Your task to perform on an android device: open sync settings in chrome Image 0: 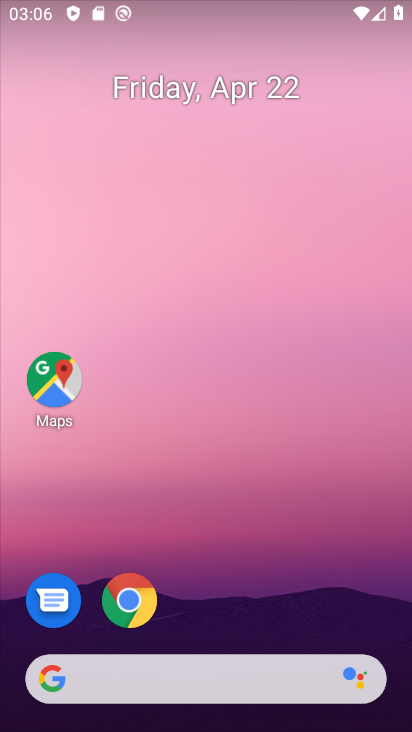
Step 0: drag from (235, 594) to (245, 241)
Your task to perform on an android device: open sync settings in chrome Image 1: 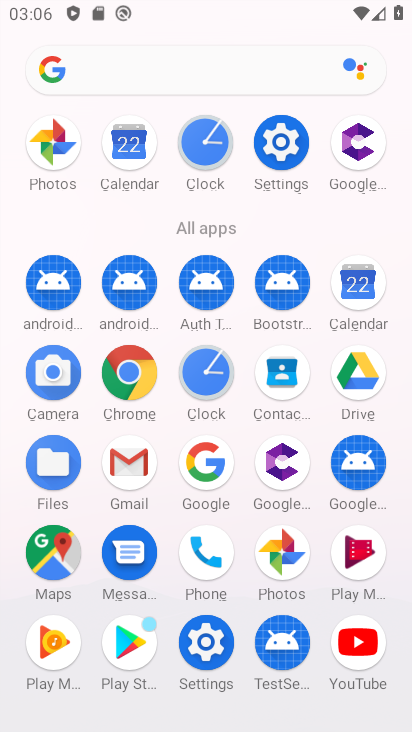
Step 1: click (111, 393)
Your task to perform on an android device: open sync settings in chrome Image 2: 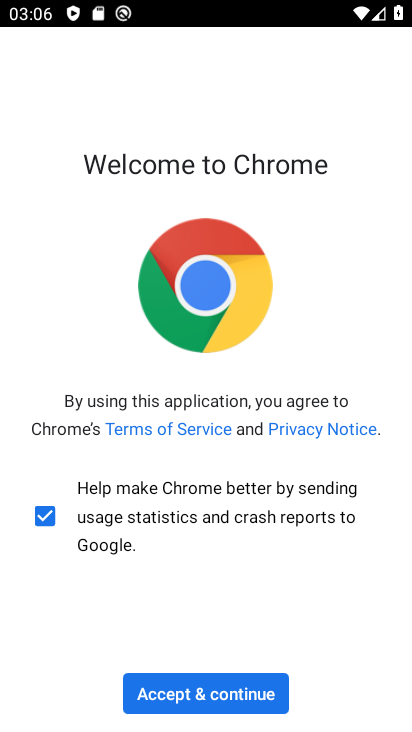
Step 2: click (171, 693)
Your task to perform on an android device: open sync settings in chrome Image 3: 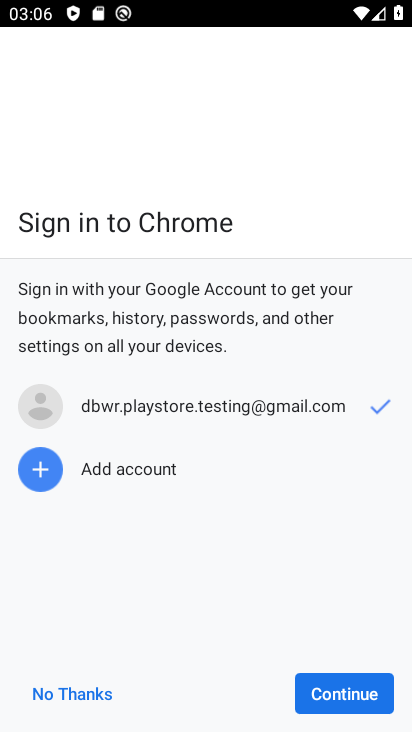
Step 3: click (347, 699)
Your task to perform on an android device: open sync settings in chrome Image 4: 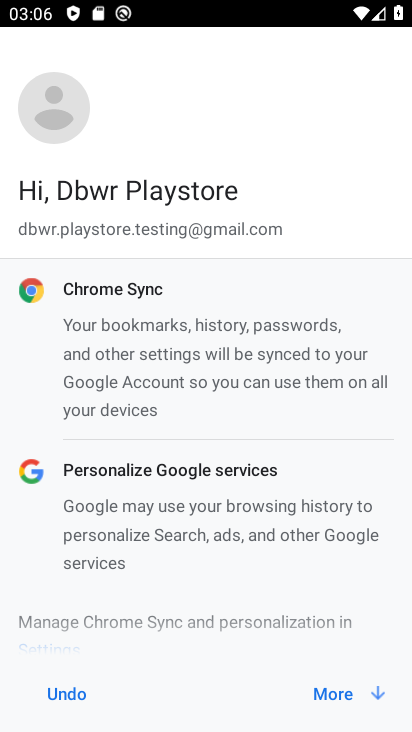
Step 4: drag from (233, 420) to (200, 298)
Your task to perform on an android device: open sync settings in chrome Image 5: 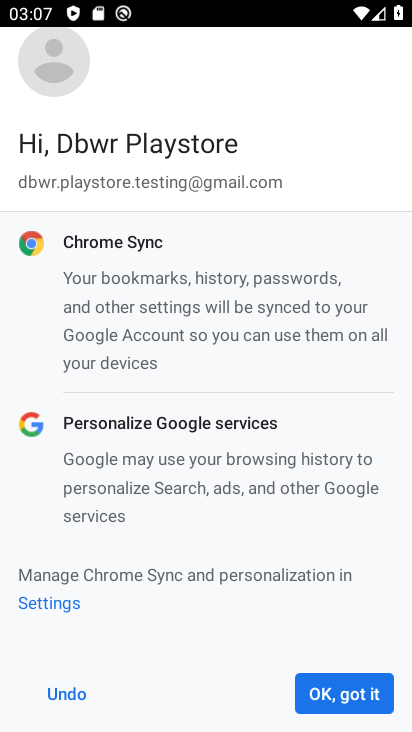
Step 5: press home button
Your task to perform on an android device: open sync settings in chrome Image 6: 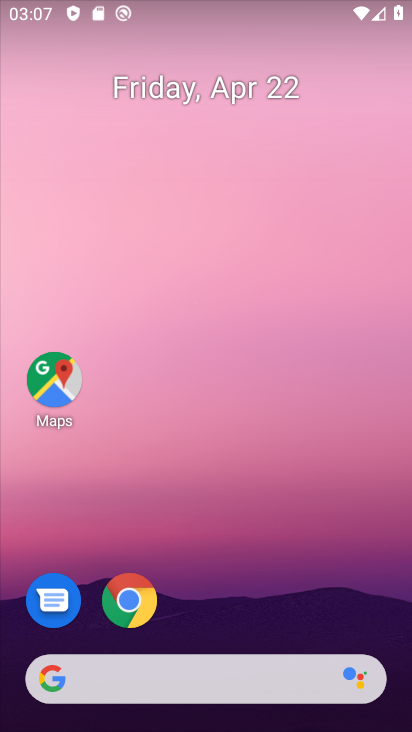
Step 6: click (134, 610)
Your task to perform on an android device: open sync settings in chrome Image 7: 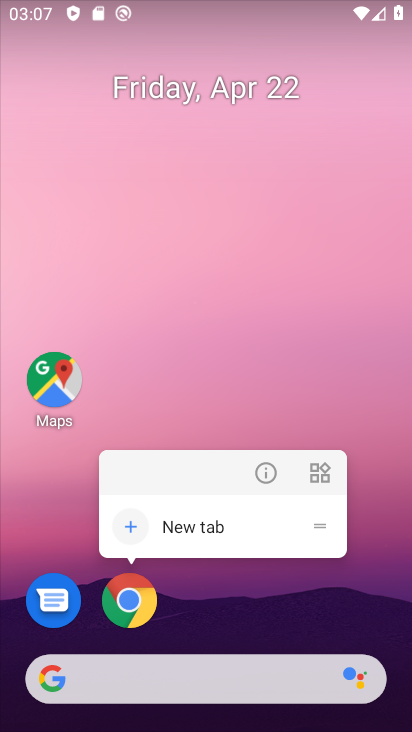
Step 7: click (135, 601)
Your task to perform on an android device: open sync settings in chrome Image 8: 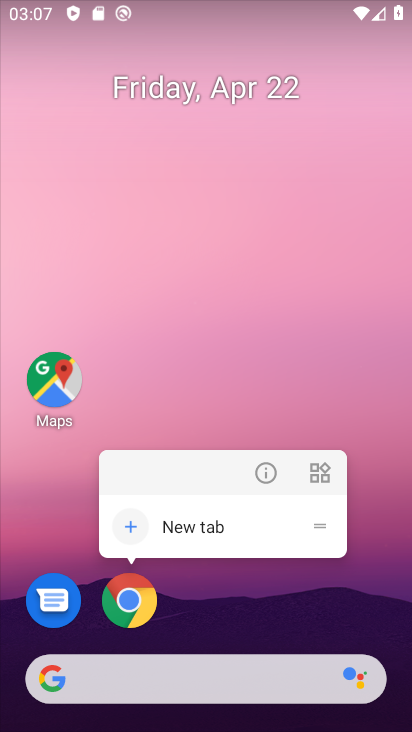
Step 8: click (127, 594)
Your task to perform on an android device: open sync settings in chrome Image 9: 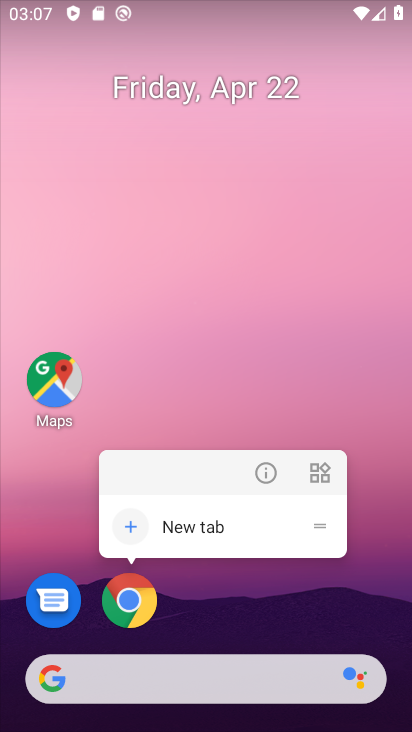
Step 9: click (110, 606)
Your task to perform on an android device: open sync settings in chrome Image 10: 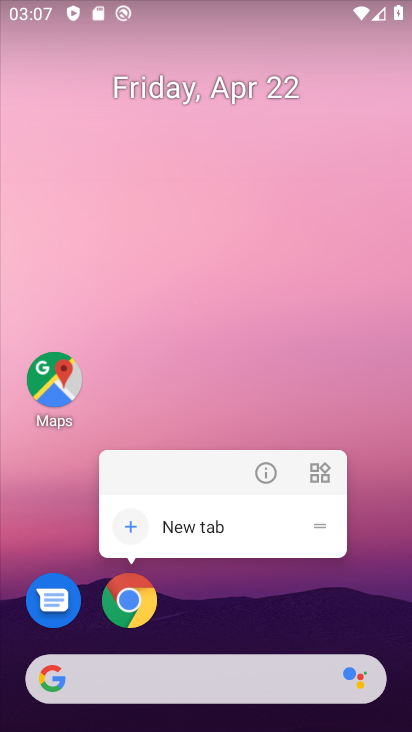
Step 10: click (123, 596)
Your task to perform on an android device: open sync settings in chrome Image 11: 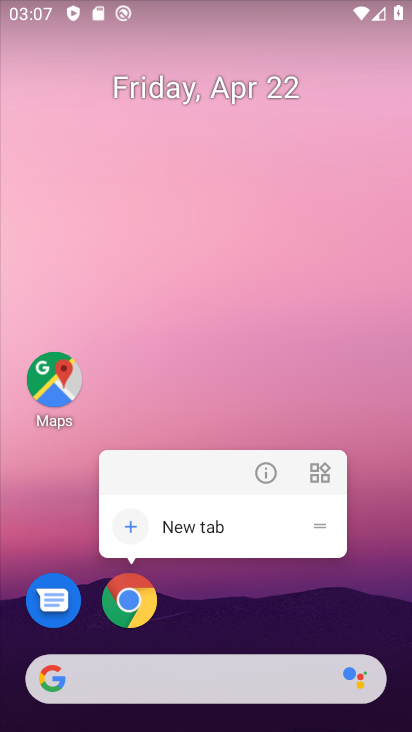
Step 11: click (128, 591)
Your task to perform on an android device: open sync settings in chrome Image 12: 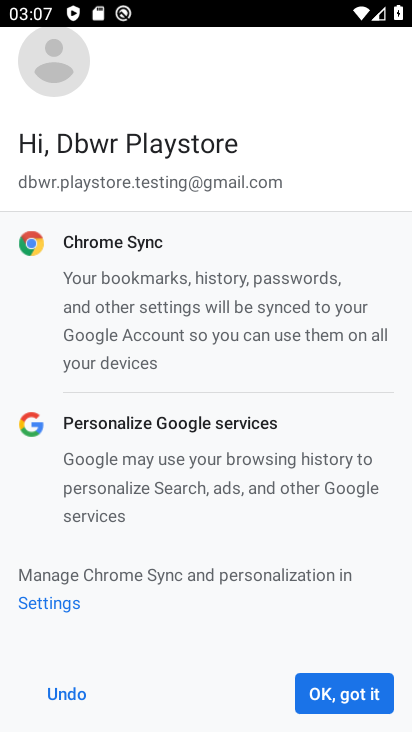
Step 12: click (361, 692)
Your task to perform on an android device: open sync settings in chrome Image 13: 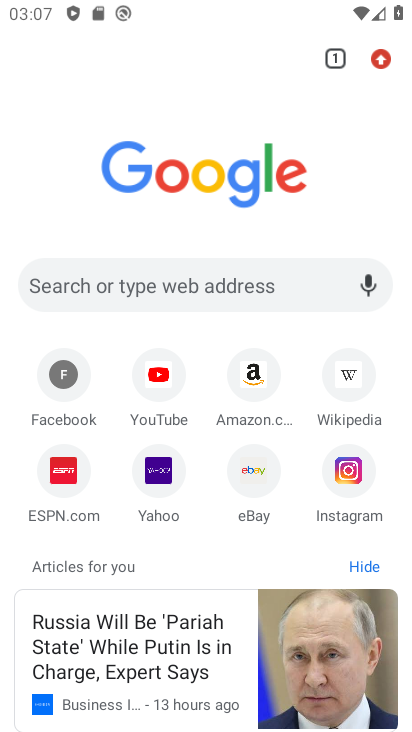
Step 13: click (379, 55)
Your task to perform on an android device: open sync settings in chrome Image 14: 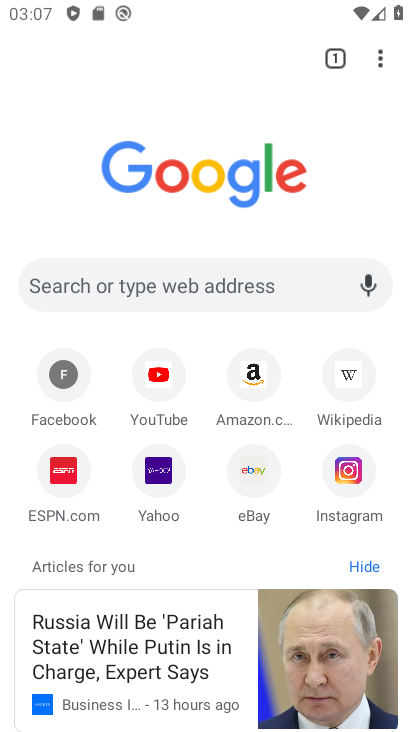
Step 14: click (379, 60)
Your task to perform on an android device: open sync settings in chrome Image 15: 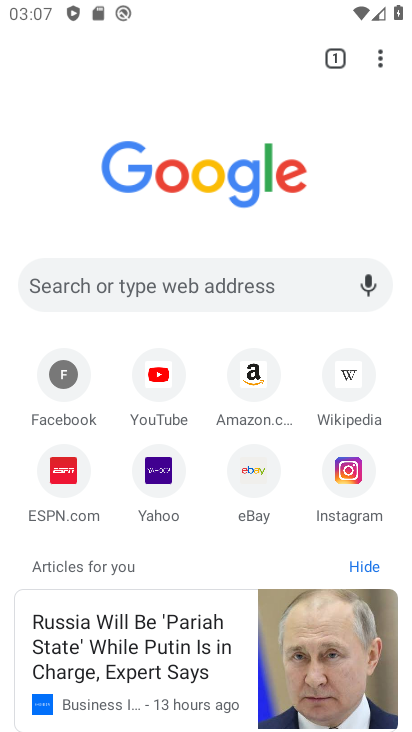
Step 15: click (379, 60)
Your task to perform on an android device: open sync settings in chrome Image 16: 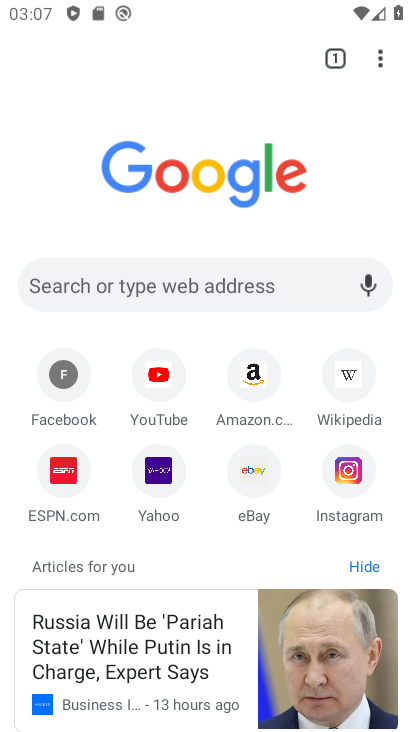
Step 16: click (380, 62)
Your task to perform on an android device: open sync settings in chrome Image 17: 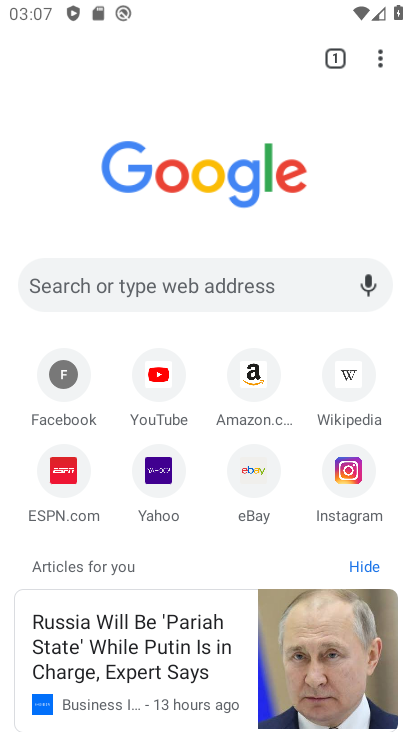
Step 17: click (386, 59)
Your task to perform on an android device: open sync settings in chrome Image 18: 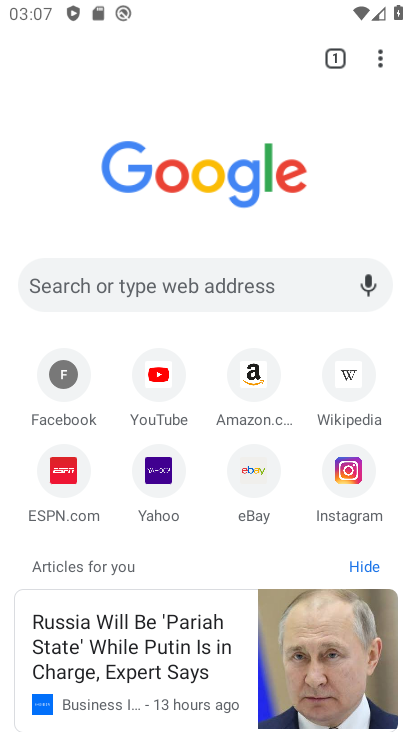
Step 18: click (384, 61)
Your task to perform on an android device: open sync settings in chrome Image 19: 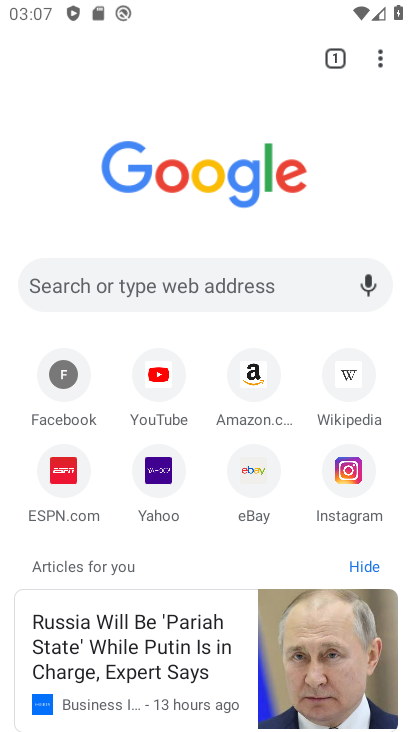
Step 19: click (384, 59)
Your task to perform on an android device: open sync settings in chrome Image 20: 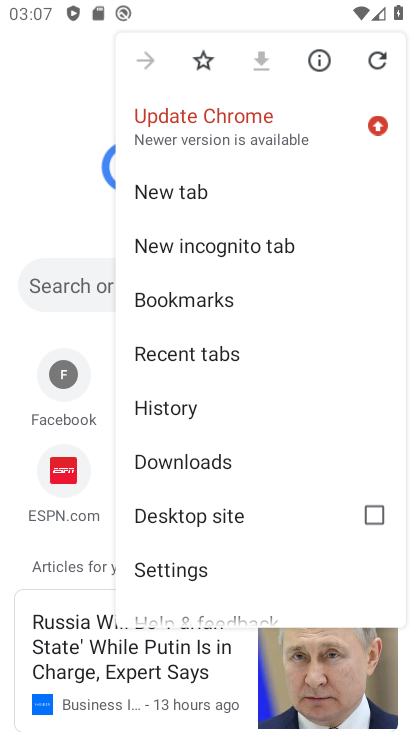
Step 20: click (167, 567)
Your task to perform on an android device: open sync settings in chrome Image 21: 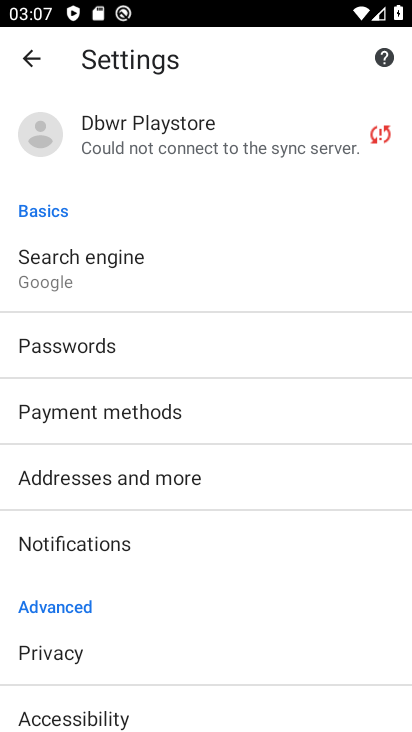
Step 21: drag from (100, 652) to (211, 298)
Your task to perform on an android device: open sync settings in chrome Image 22: 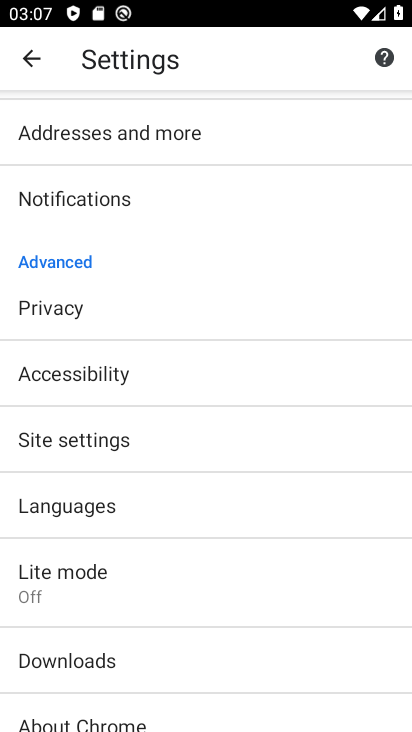
Step 22: drag from (111, 637) to (151, 256)
Your task to perform on an android device: open sync settings in chrome Image 23: 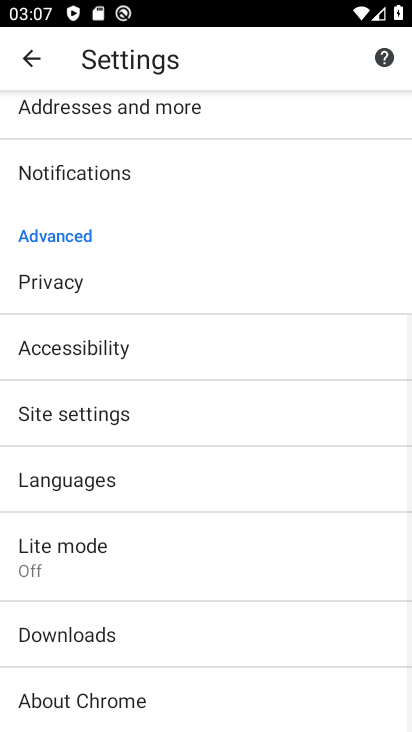
Step 23: drag from (181, 286) to (98, 692)
Your task to perform on an android device: open sync settings in chrome Image 24: 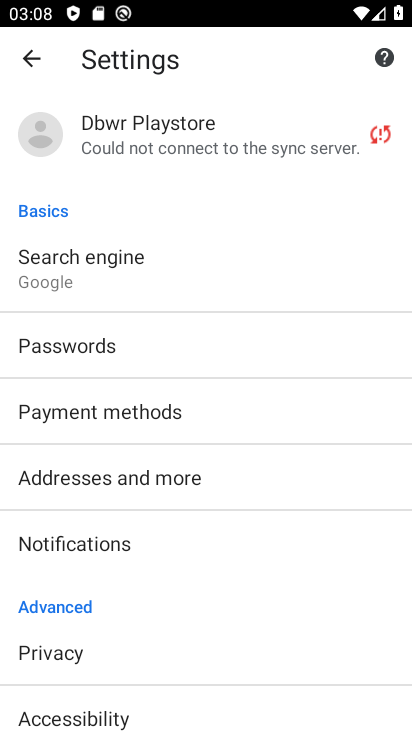
Step 24: click (183, 134)
Your task to perform on an android device: open sync settings in chrome Image 25: 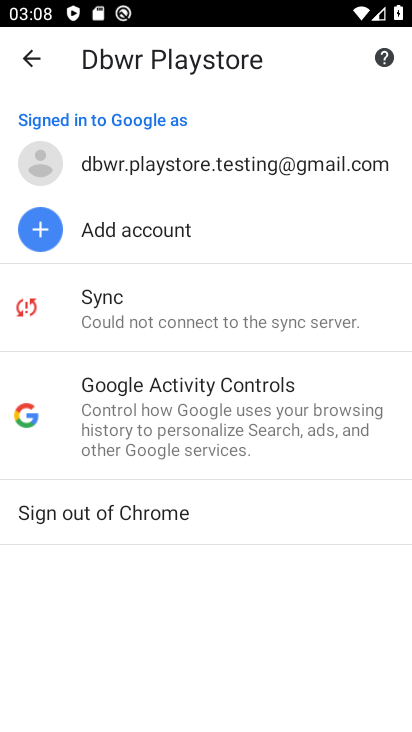
Step 25: click (242, 315)
Your task to perform on an android device: open sync settings in chrome Image 26: 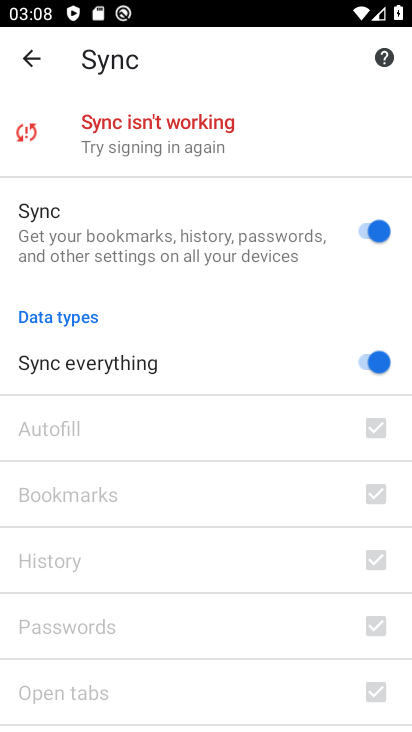
Step 26: task complete